Your task to perform on an android device: Open Google Maps and go to "Timeline" Image 0: 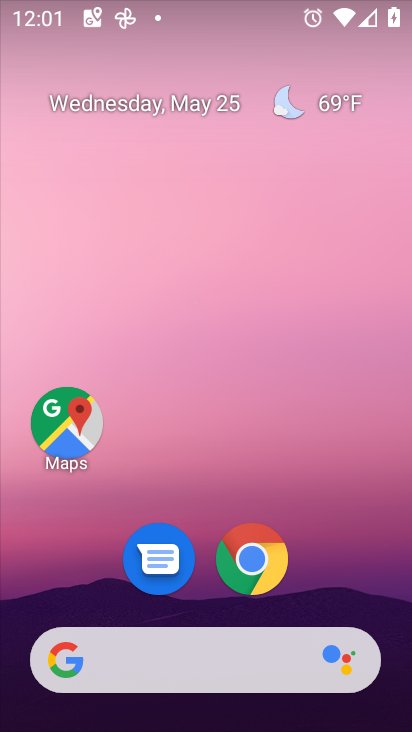
Step 0: drag from (387, 627) to (303, 42)
Your task to perform on an android device: Open Google Maps and go to "Timeline" Image 1: 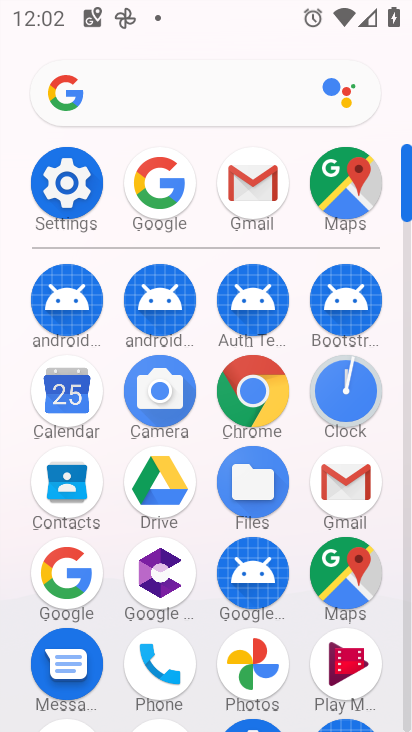
Step 1: click (350, 579)
Your task to perform on an android device: Open Google Maps and go to "Timeline" Image 2: 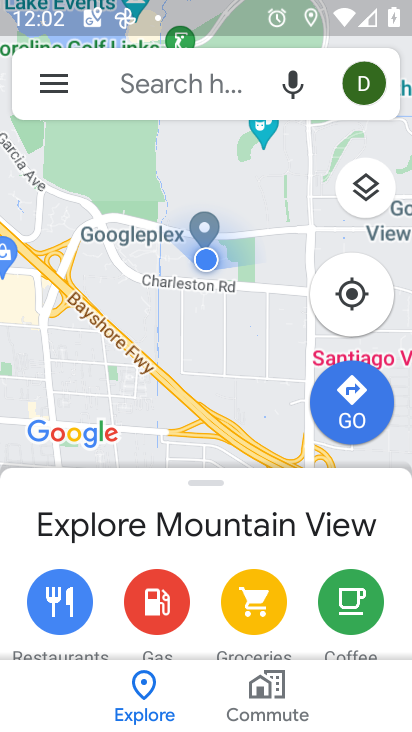
Step 2: click (48, 79)
Your task to perform on an android device: Open Google Maps and go to "Timeline" Image 3: 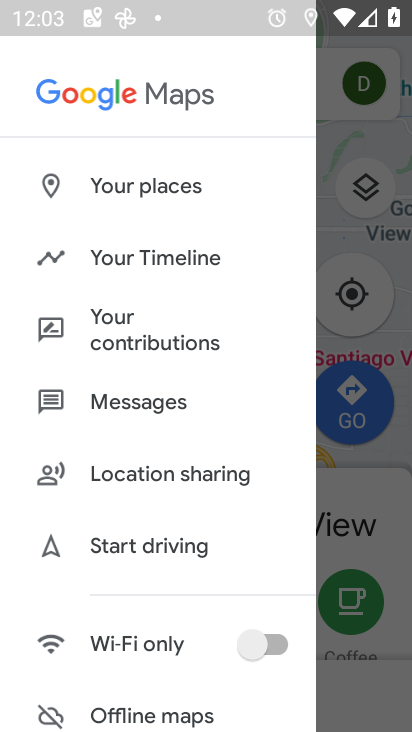
Step 3: click (176, 280)
Your task to perform on an android device: Open Google Maps and go to "Timeline" Image 4: 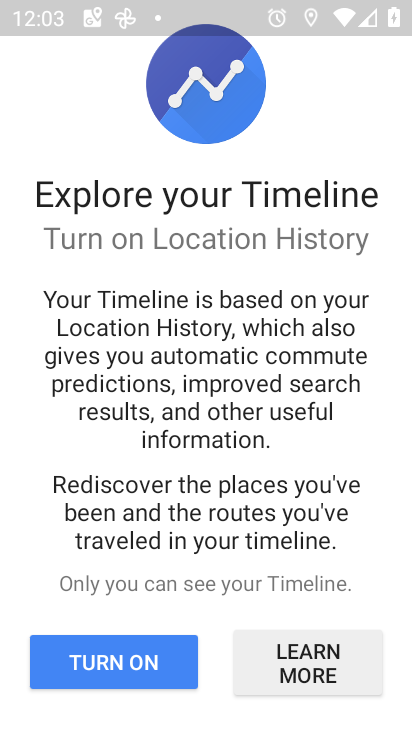
Step 4: task complete